Your task to perform on an android device: Open wifi settings Image 0: 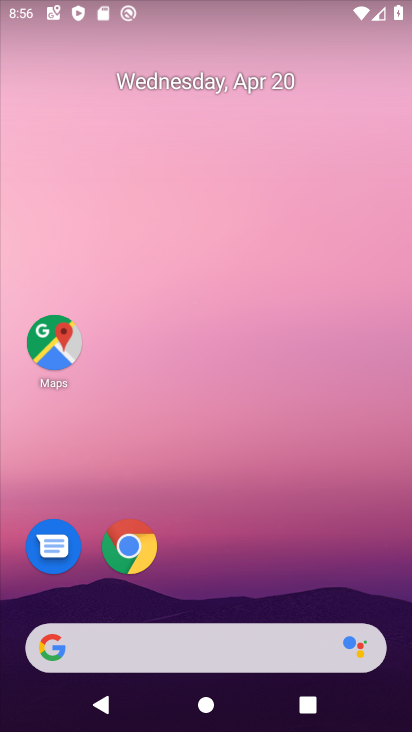
Step 0: drag from (212, 725) to (160, 11)
Your task to perform on an android device: Open wifi settings Image 1: 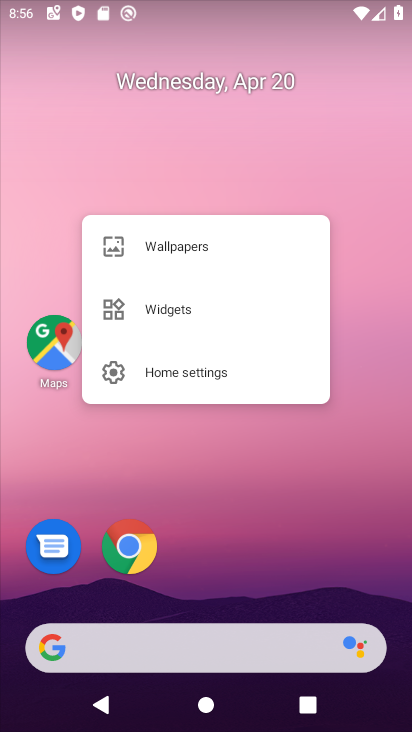
Step 1: click (275, 500)
Your task to perform on an android device: Open wifi settings Image 2: 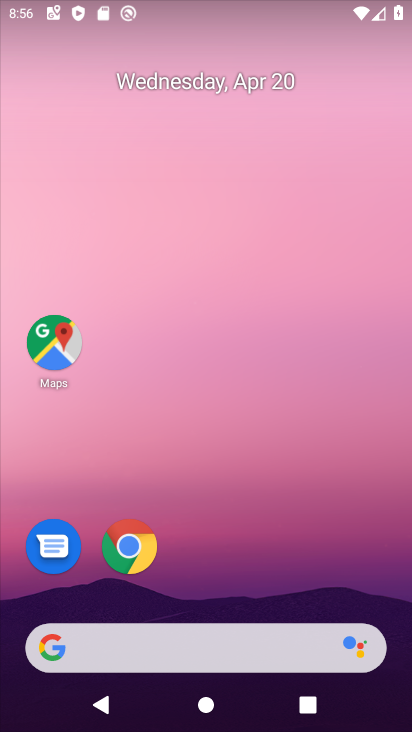
Step 2: drag from (206, 714) to (206, 184)
Your task to perform on an android device: Open wifi settings Image 3: 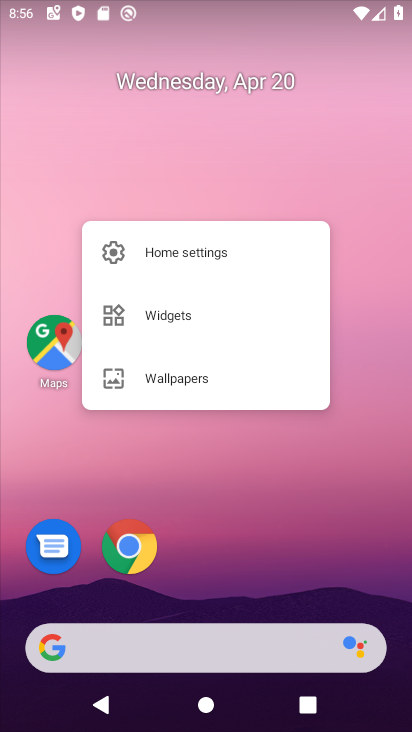
Step 3: click (243, 461)
Your task to perform on an android device: Open wifi settings Image 4: 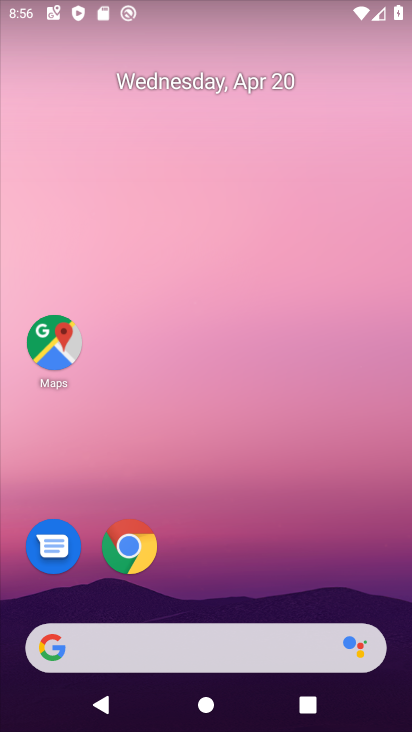
Step 4: drag from (206, 728) to (198, 52)
Your task to perform on an android device: Open wifi settings Image 5: 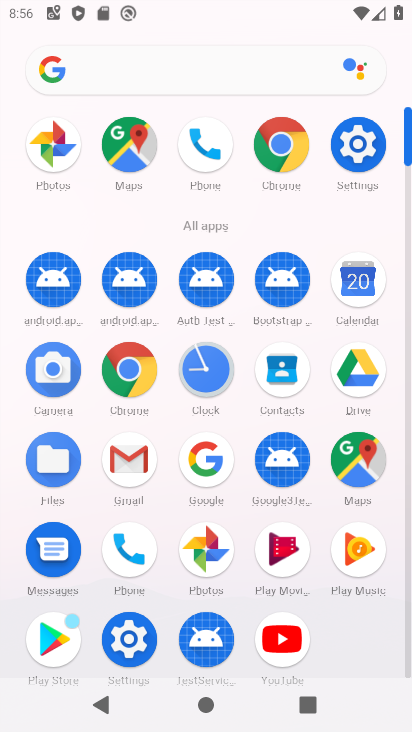
Step 5: click (347, 146)
Your task to perform on an android device: Open wifi settings Image 6: 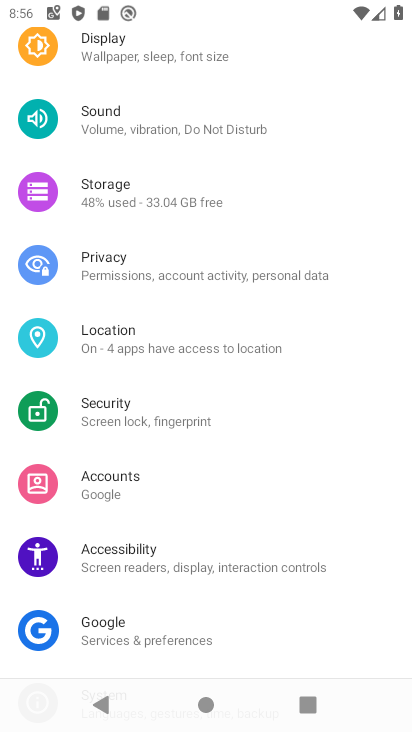
Step 6: drag from (166, 113) to (217, 490)
Your task to perform on an android device: Open wifi settings Image 7: 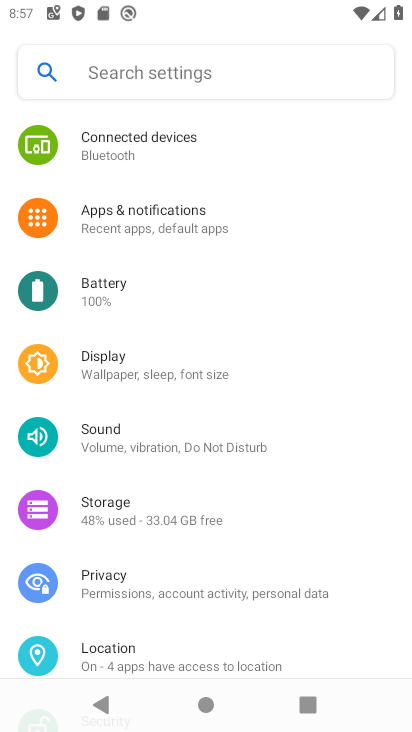
Step 7: drag from (170, 165) to (208, 526)
Your task to perform on an android device: Open wifi settings Image 8: 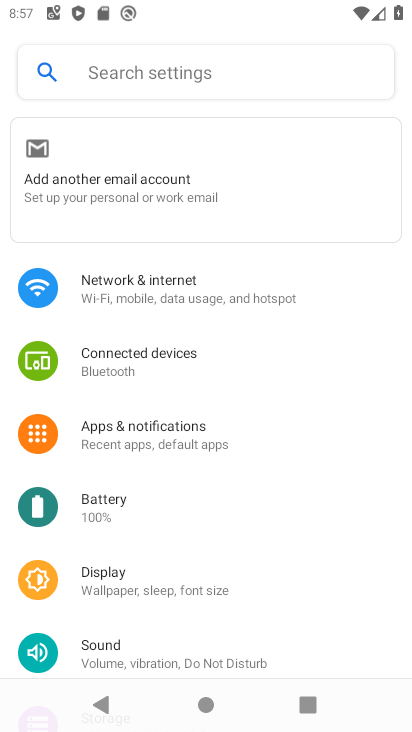
Step 8: click (126, 278)
Your task to perform on an android device: Open wifi settings Image 9: 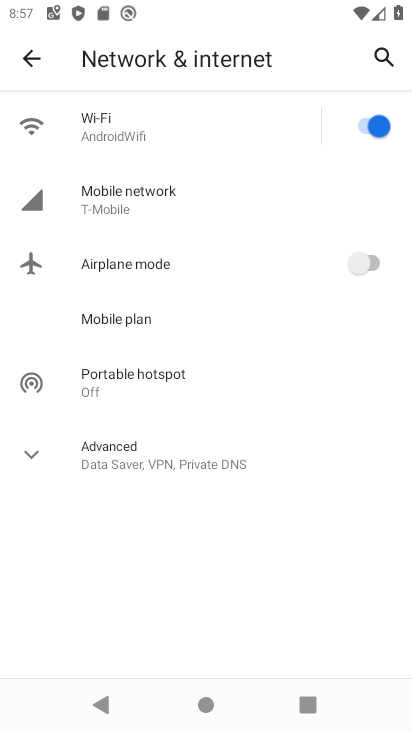
Step 9: click (118, 133)
Your task to perform on an android device: Open wifi settings Image 10: 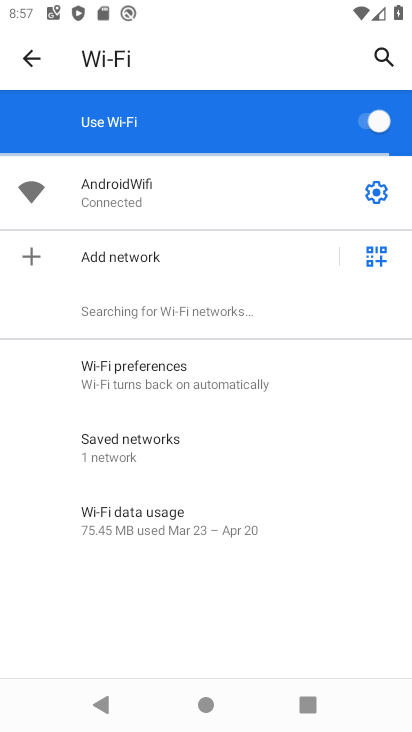
Step 10: click (370, 189)
Your task to perform on an android device: Open wifi settings Image 11: 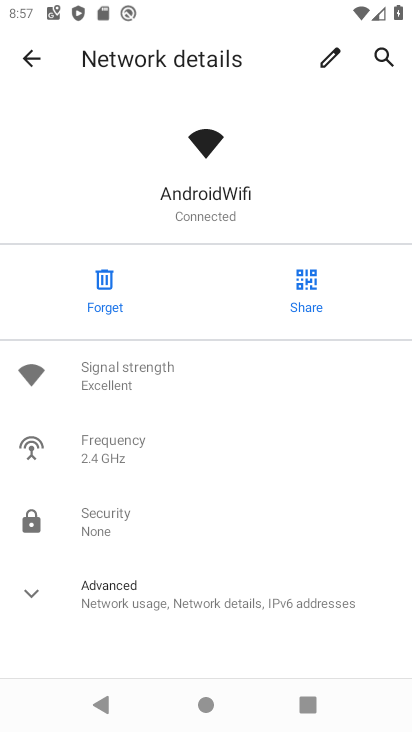
Step 11: task complete